Your task to perform on an android device: turn on notifications settings in the gmail app Image 0: 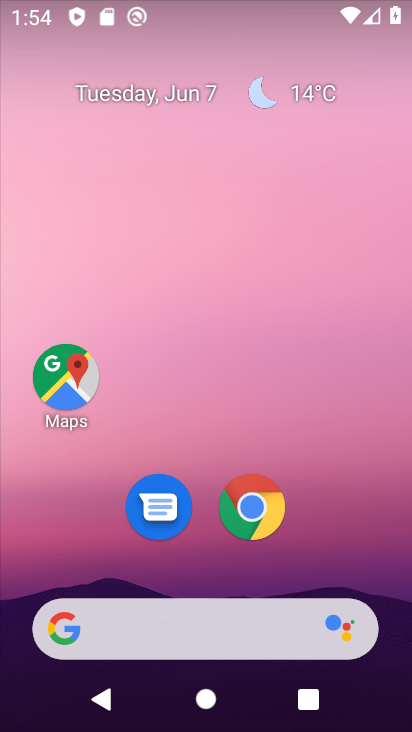
Step 0: drag from (341, 491) to (273, 75)
Your task to perform on an android device: turn on notifications settings in the gmail app Image 1: 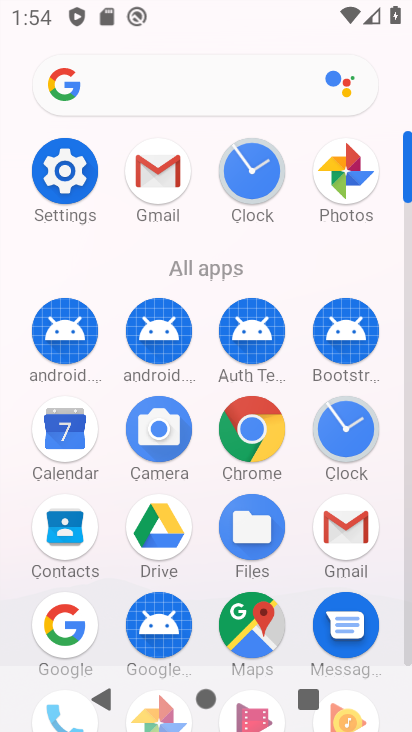
Step 1: click (172, 178)
Your task to perform on an android device: turn on notifications settings in the gmail app Image 2: 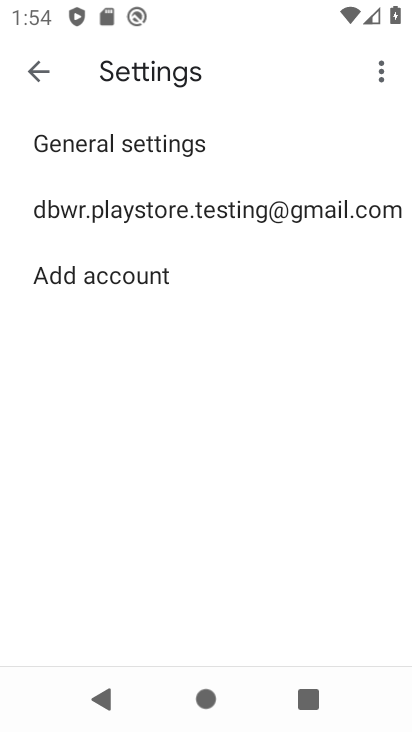
Step 2: click (158, 204)
Your task to perform on an android device: turn on notifications settings in the gmail app Image 3: 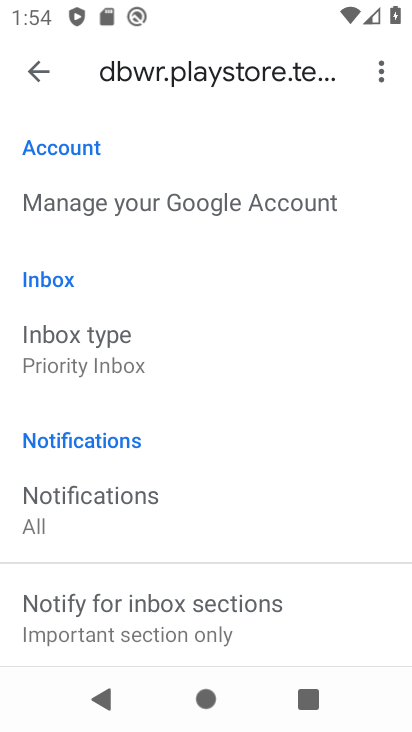
Step 3: drag from (280, 469) to (297, 15)
Your task to perform on an android device: turn on notifications settings in the gmail app Image 4: 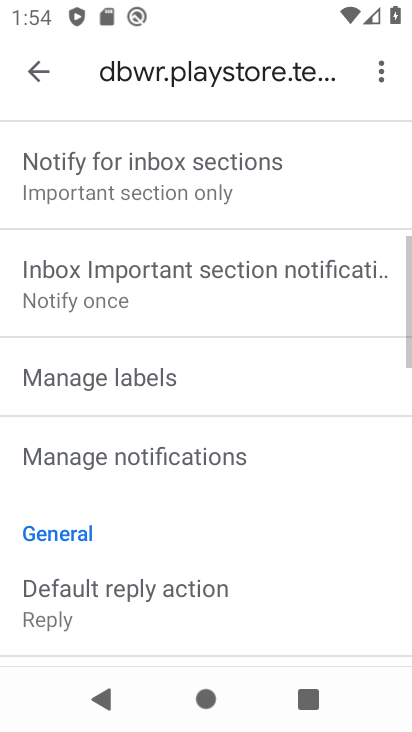
Step 4: click (198, 462)
Your task to perform on an android device: turn on notifications settings in the gmail app Image 5: 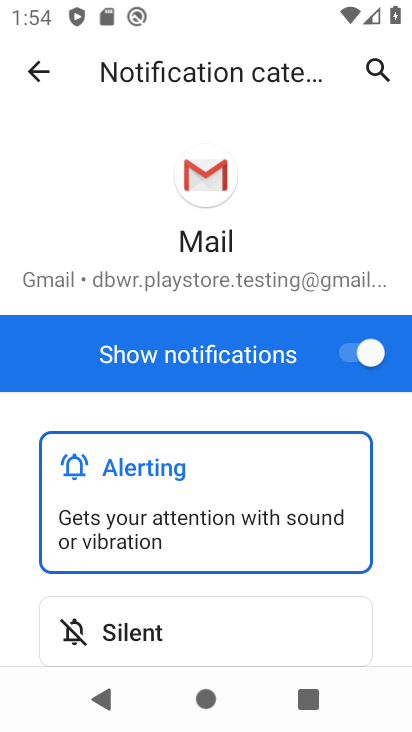
Step 5: click (365, 346)
Your task to perform on an android device: turn on notifications settings in the gmail app Image 6: 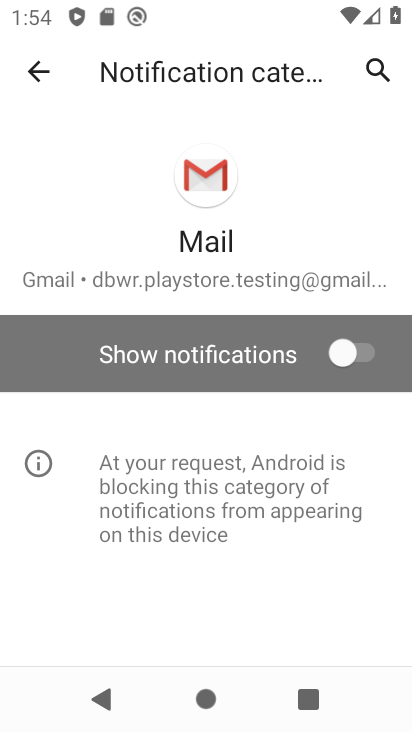
Step 6: task complete